Your task to perform on an android device: toggle improve location accuracy Image 0: 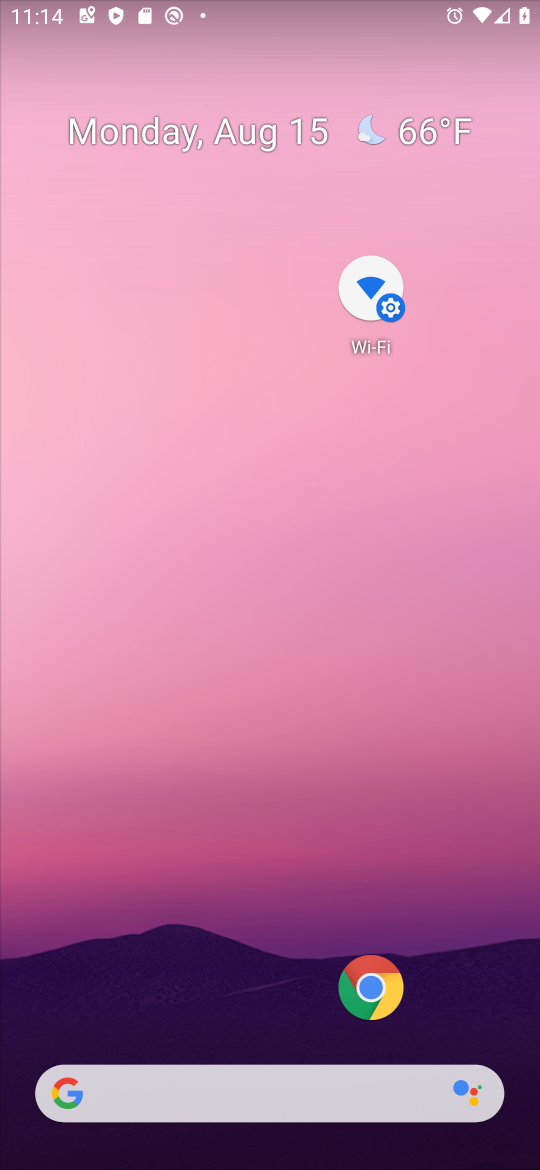
Step 0: drag from (285, 1052) to (172, 76)
Your task to perform on an android device: toggle improve location accuracy Image 1: 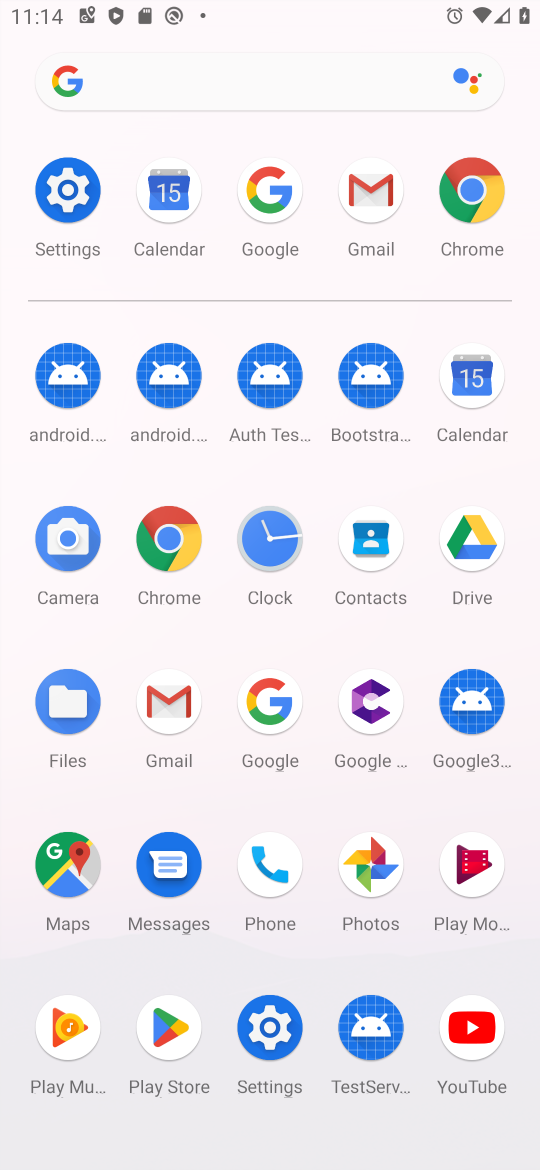
Step 1: click (286, 1028)
Your task to perform on an android device: toggle improve location accuracy Image 2: 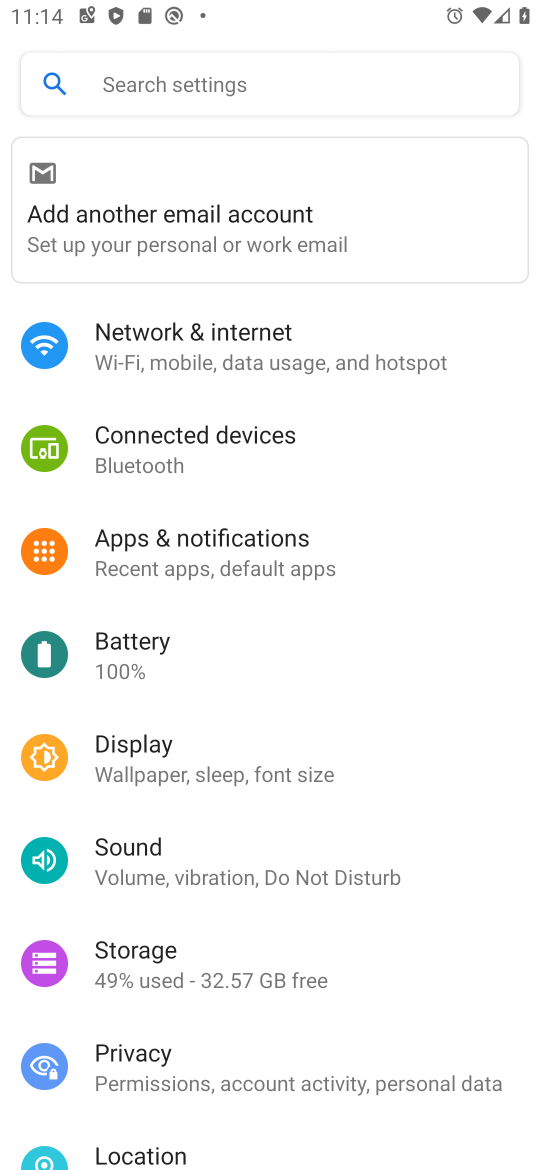
Step 2: click (174, 1149)
Your task to perform on an android device: toggle improve location accuracy Image 3: 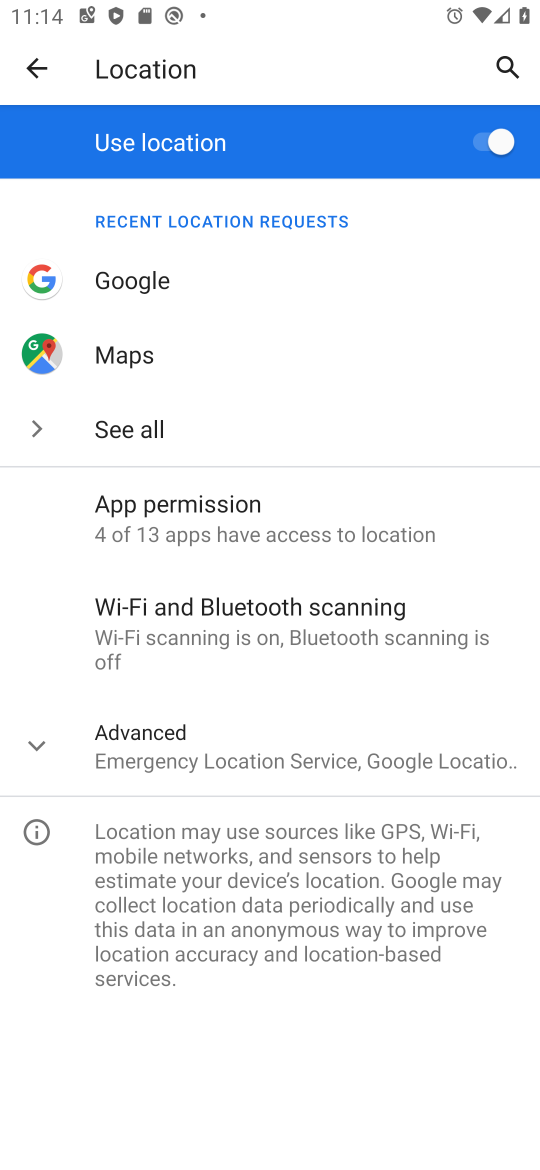
Step 3: click (162, 730)
Your task to perform on an android device: toggle improve location accuracy Image 4: 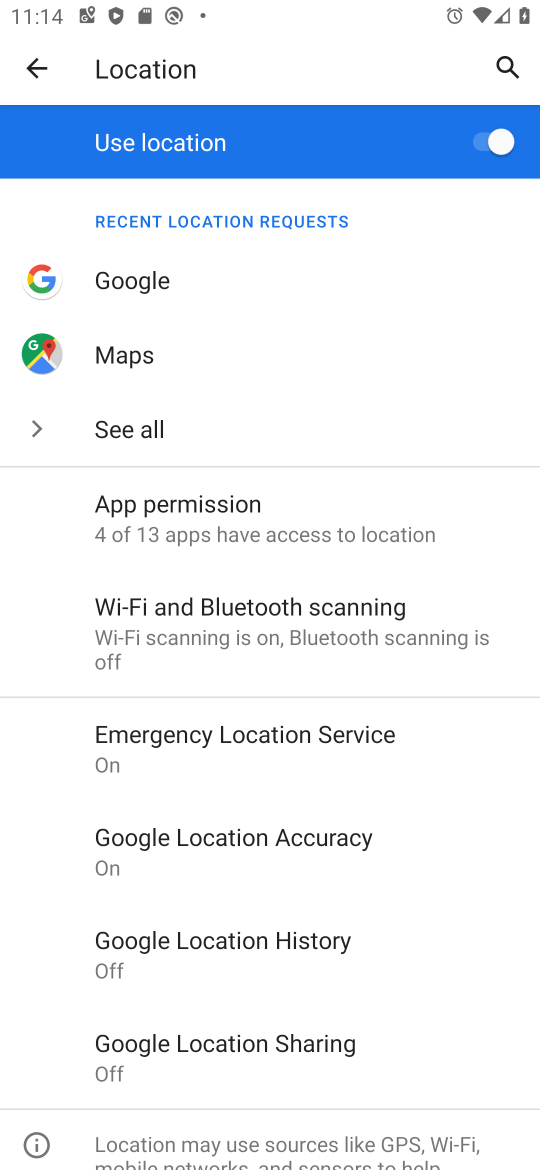
Step 4: click (291, 853)
Your task to perform on an android device: toggle improve location accuracy Image 5: 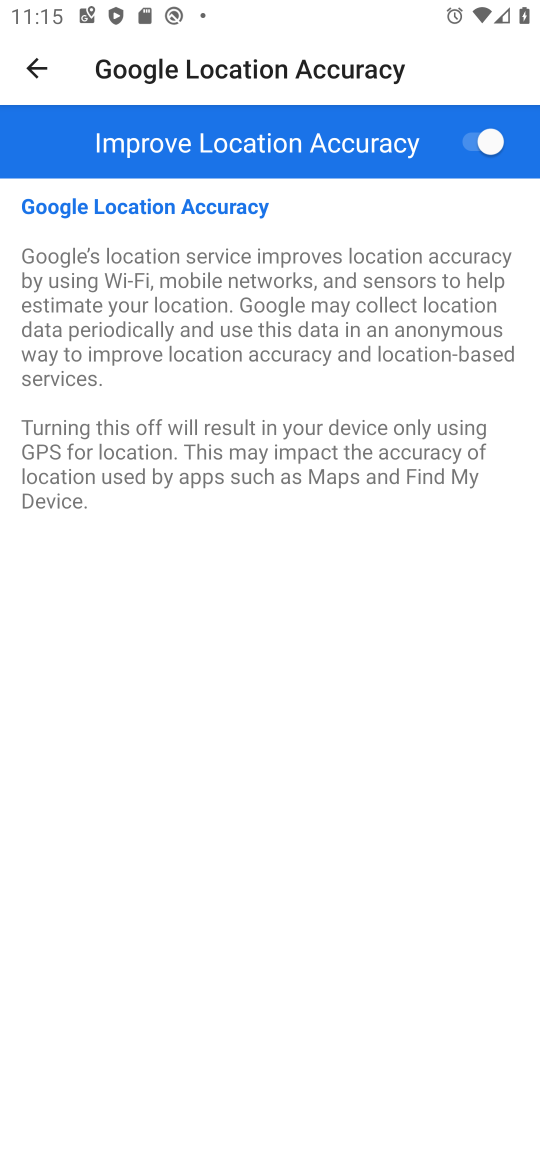
Step 5: click (492, 120)
Your task to perform on an android device: toggle improve location accuracy Image 6: 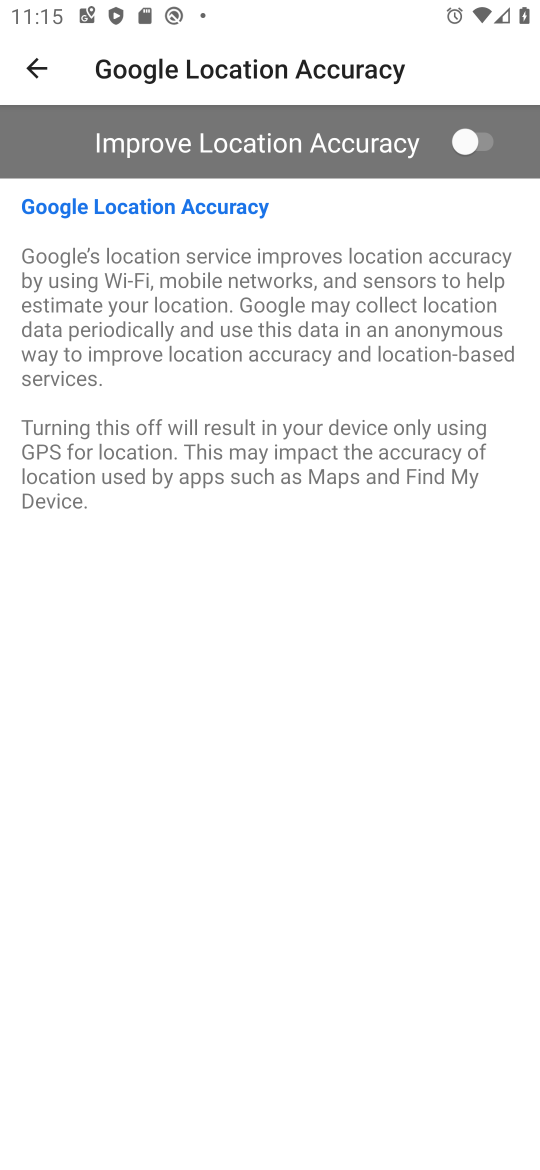
Step 6: task complete